Your task to perform on an android device: Open privacy settings Image 0: 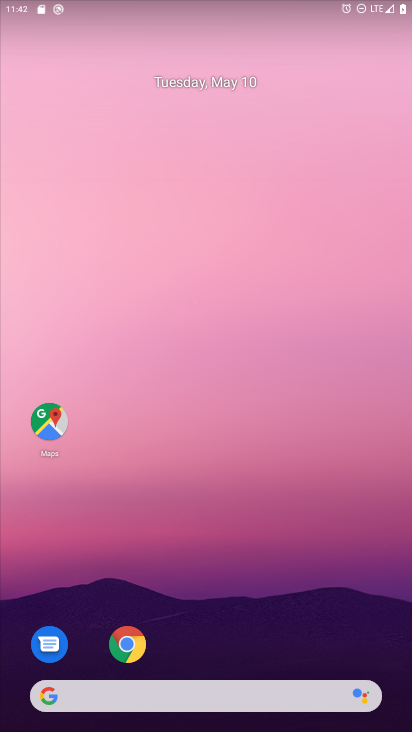
Step 0: drag from (361, 619) to (387, 96)
Your task to perform on an android device: Open privacy settings Image 1: 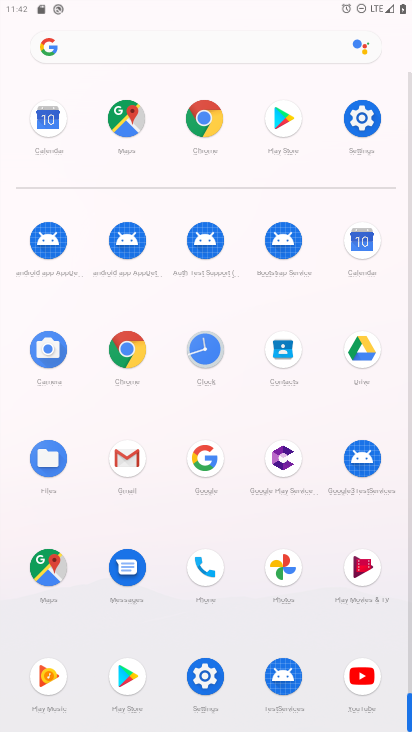
Step 1: click (362, 113)
Your task to perform on an android device: Open privacy settings Image 2: 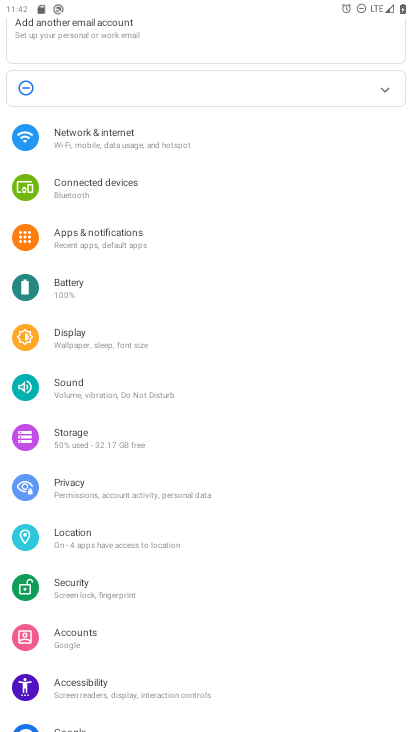
Step 2: drag from (269, 614) to (247, 168)
Your task to perform on an android device: Open privacy settings Image 3: 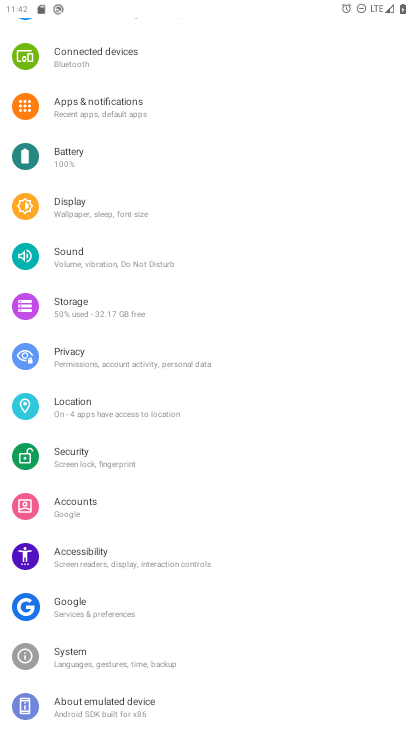
Step 3: click (142, 362)
Your task to perform on an android device: Open privacy settings Image 4: 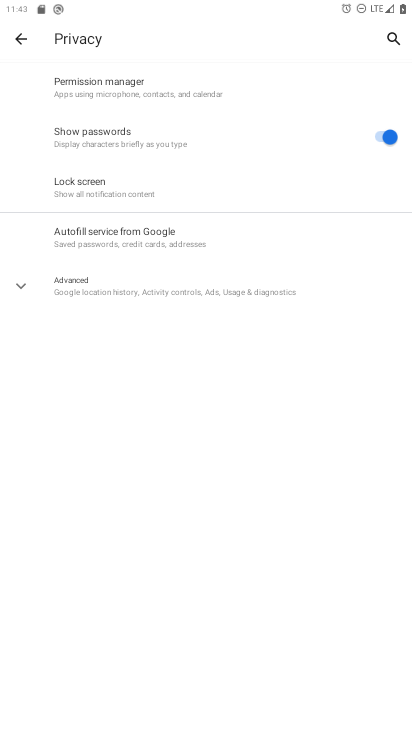
Step 4: task complete